Your task to perform on an android device: Search for pizza restaurants on Maps Image 0: 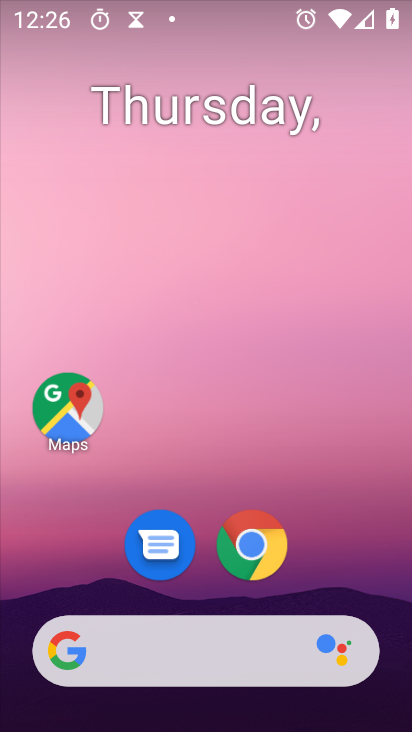
Step 0: press home button
Your task to perform on an android device: Search for pizza restaurants on Maps Image 1: 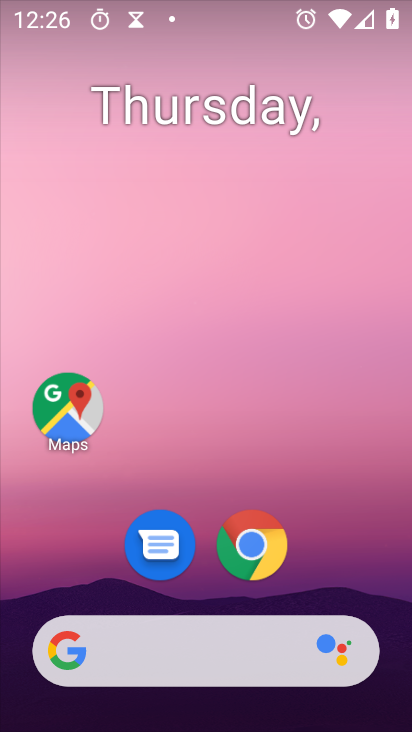
Step 1: click (70, 412)
Your task to perform on an android device: Search for pizza restaurants on Maps Image 2: 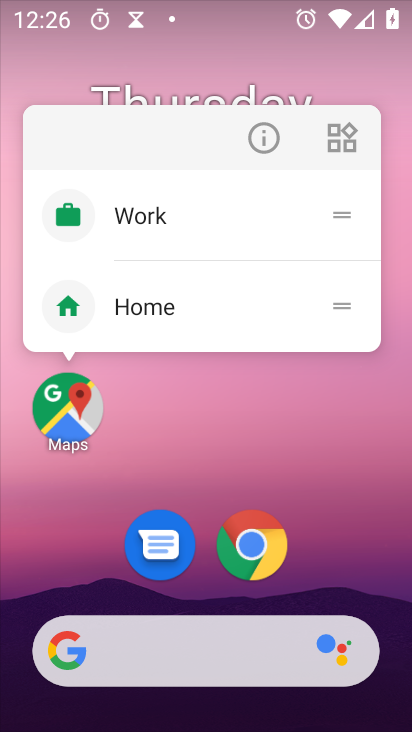
Step 2: click (66, 417)
Your task to perform on an android device: Search for pizza restaurants on Maps Image 3: 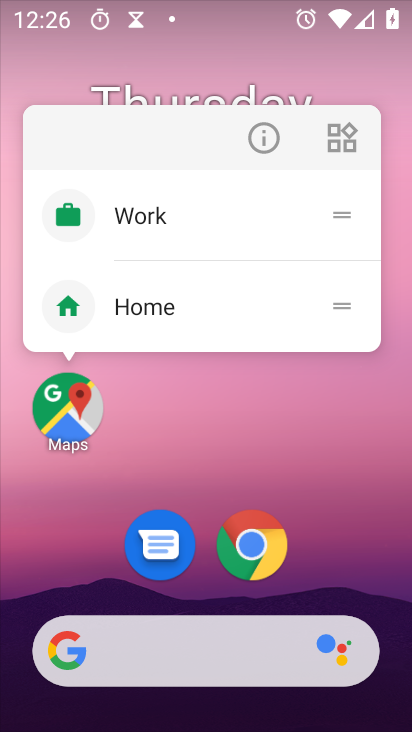
Step 3: click (59, 421)
Your task to perform on an android device: Search for pizza restaurants on Maps Image 4: 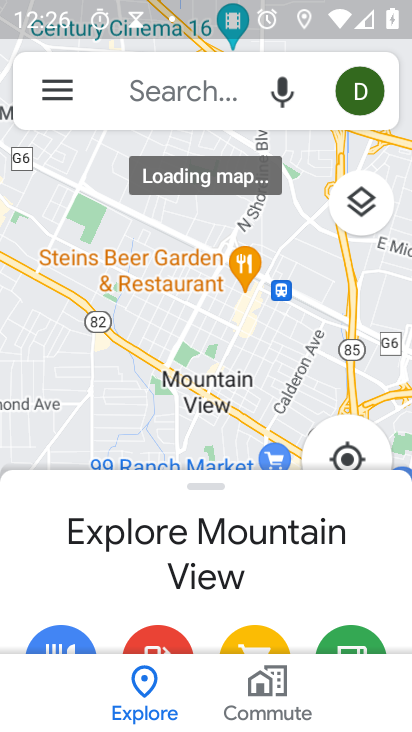
Step 4: click (196, 91)
Your task to perform on an android device: Search for pizza restaurants on Maps Image 5: 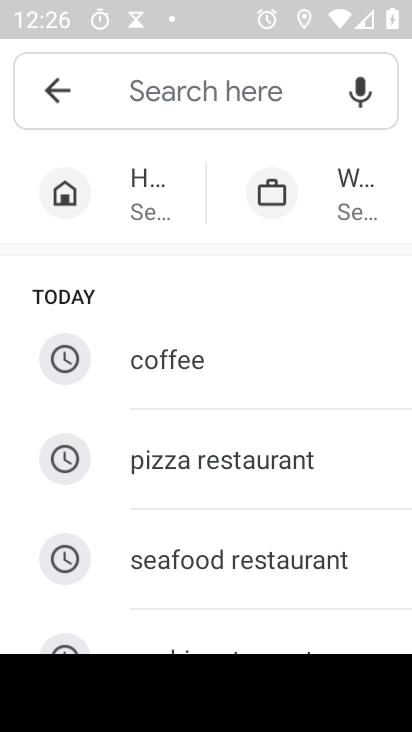
Step 5: click (251, 460)
Your task to perform on an android device: Search for pizza restaurants on Maps Image 6: 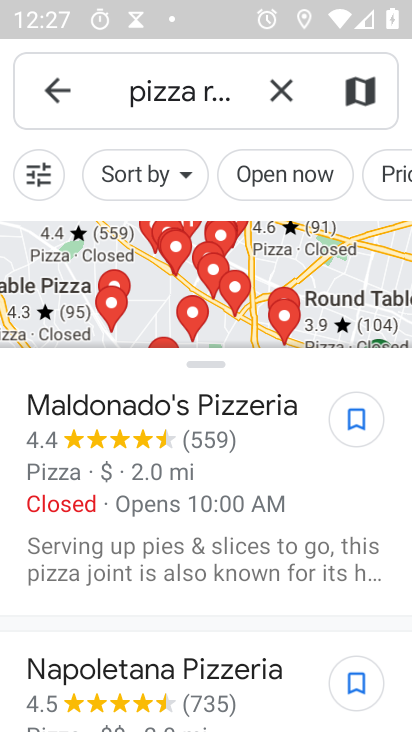
Step 6: task complete